Your task to perform on an android device: delete browsing data in the chrome app Image 0: 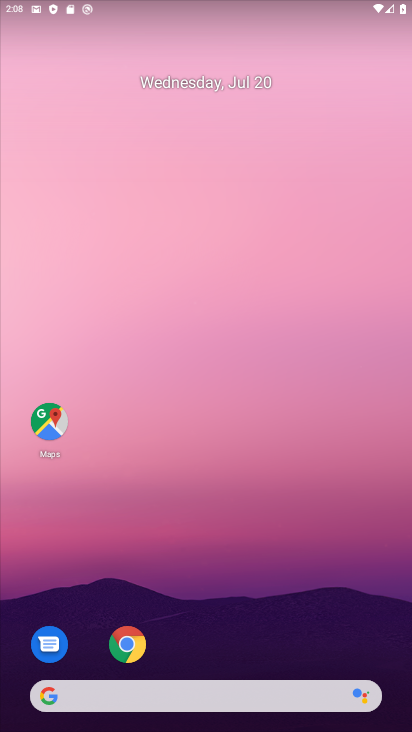
Step 0: click (293, 22)
Your task to perform on an android device: delete browsing data in the chrome app Image 1: 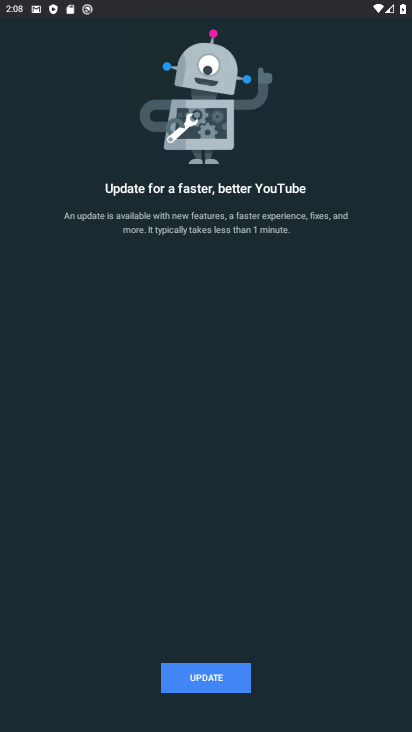
Step 1: press home button
Your task to perform on an android device: delete browsing data in the chrome app Image 2: 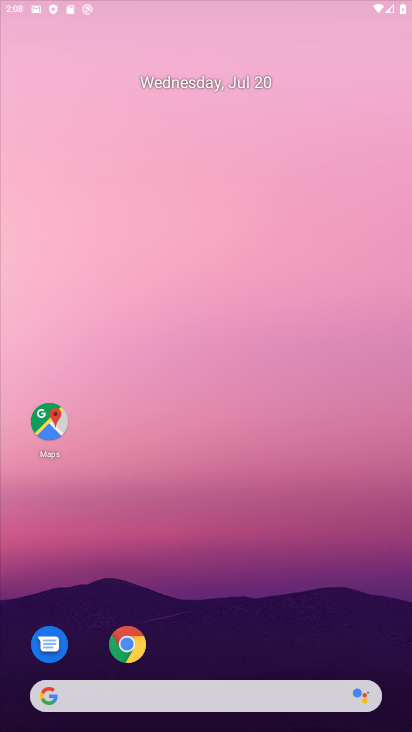
Step 2: drag from (304, 360) to (306, 297)
Your task to perform on an android device: delete browsing data in the chrome app Image 3: 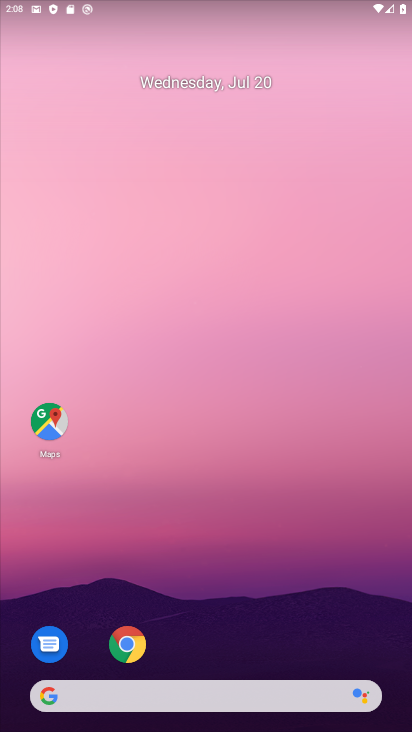
Step 3: click (118, 635)
Your task to perform on an android device: delete browsing data in the chrome app Image 4: 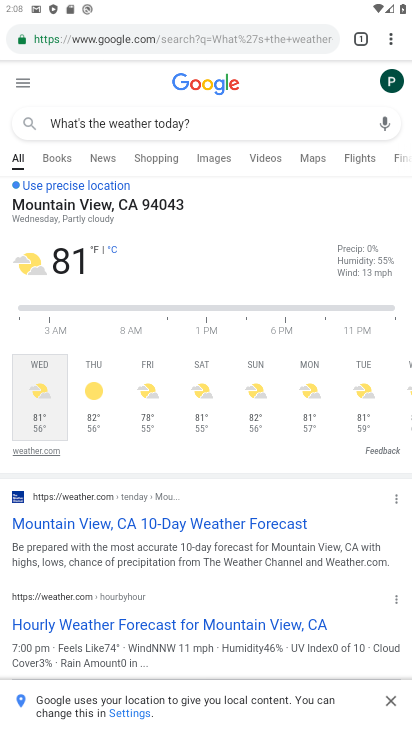
Step 4: drag from (391, 28) to (252, 431)
Your task to perform on an android device: delete browsing data in the chrome app Image 5: 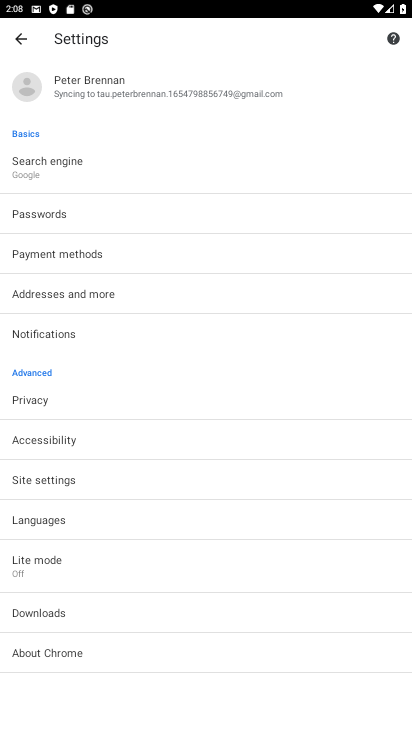
Step 5: click (43, 400)
Your task to perform on an android device: delete browsing data in the chrome app Image 6: 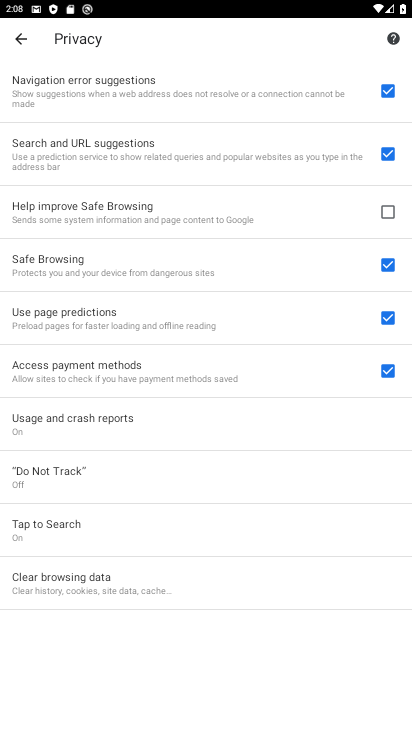
Step 6: click (134, 588)
Your task to perform on an android device: delete browsing data in the chrome app Image 7: 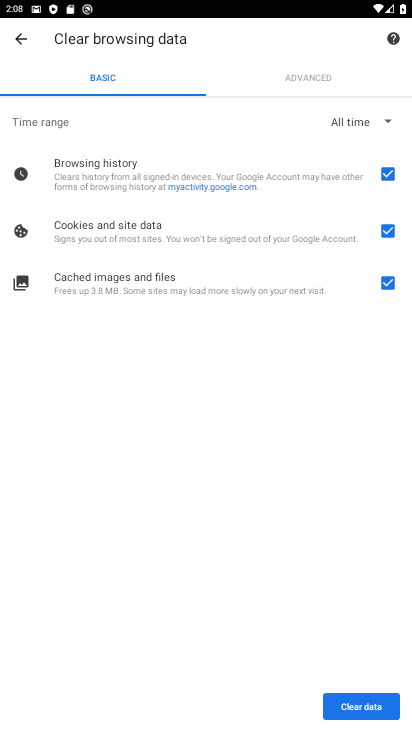
Step 7: click (349, 714)
Your task to perform on an android device: delete browsing data in the chrome app Image 8: 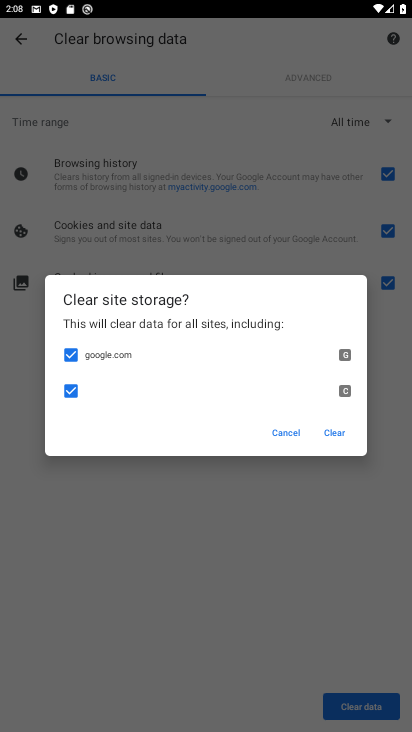
Step 8: click (343, 429)
Your task to perform on an android device: delete browsing data in the chrome app Image 9: 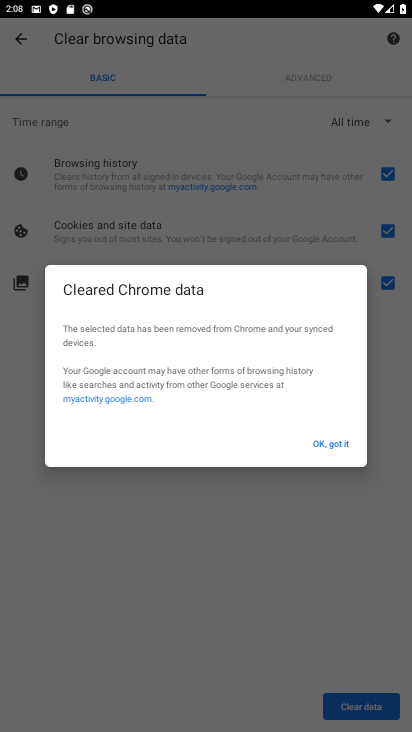
Step 9: click (343, 429)
Your task to perform on an android device: delete browsing data in the chrome app Image 10: 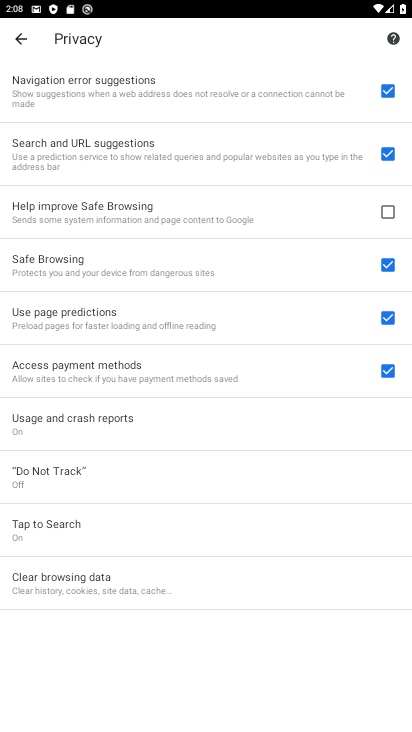
Step 10: task complete